Your task to perform on an android device: allow notifications from all sites in the chrome app Image 0: 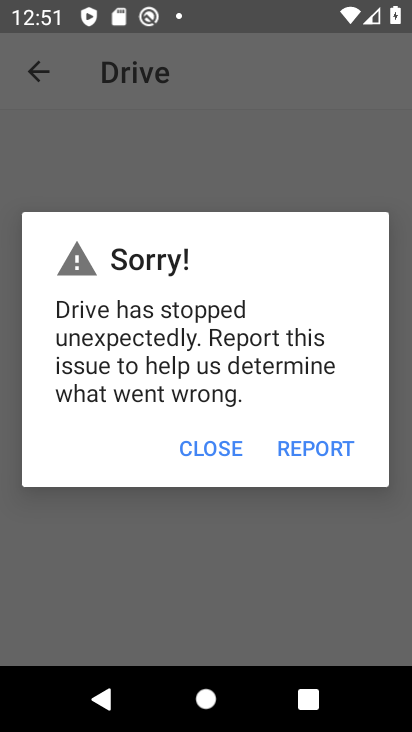
Step 0: press home button
Your task to perform on an android device: allow notifications from all sites in the chrome app Image 1: 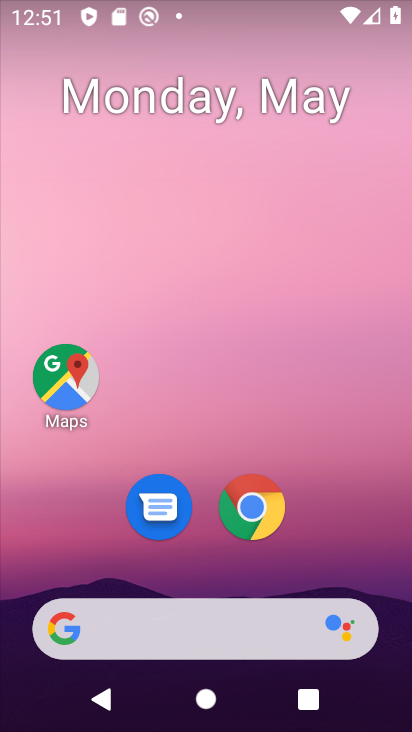
Step 1: click (257, 508)
Your task to perform on an android device: allow notifications from all sites in the chrome app Image 2: 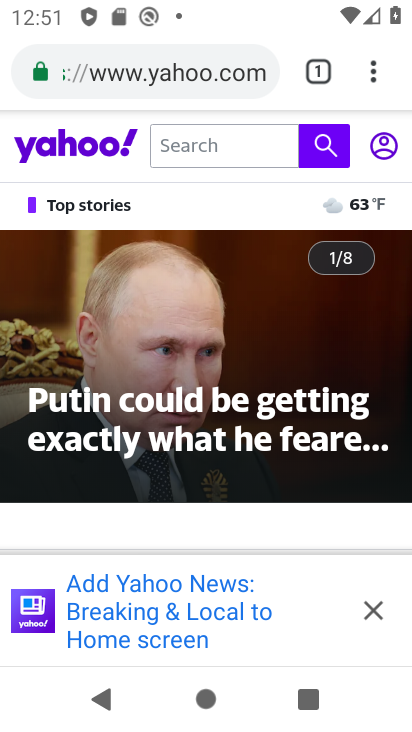
Step 2: drag from (378, 59) to (290, 507)
Your task to perform on an android device: allow notifications from all sites in the chrome app Image 3: 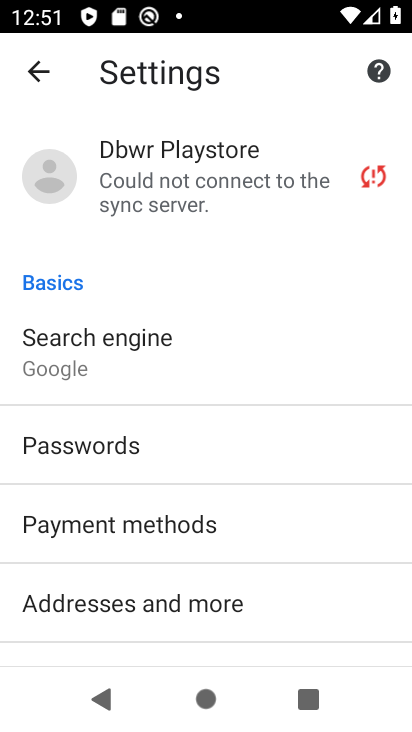
Step 3: drag from (200, 580) to (209, 285)
Your task to perform on an android device: allow notifications from all sites in the chrome app Image 4: 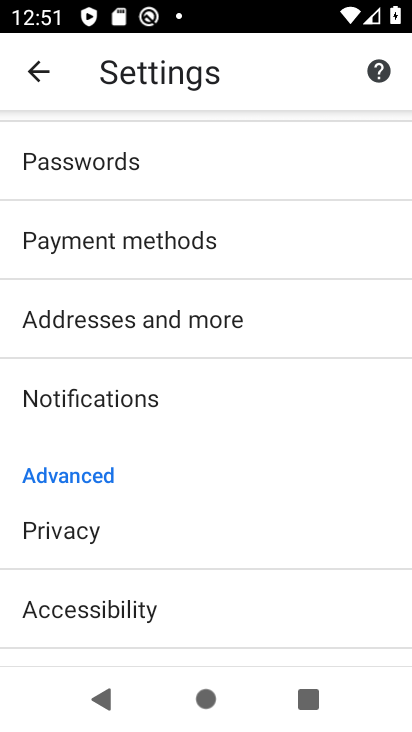
Step 4: click (101, 390)
Your task to perform on an android device: allow notifications from all sites in the chrome app Image 5: 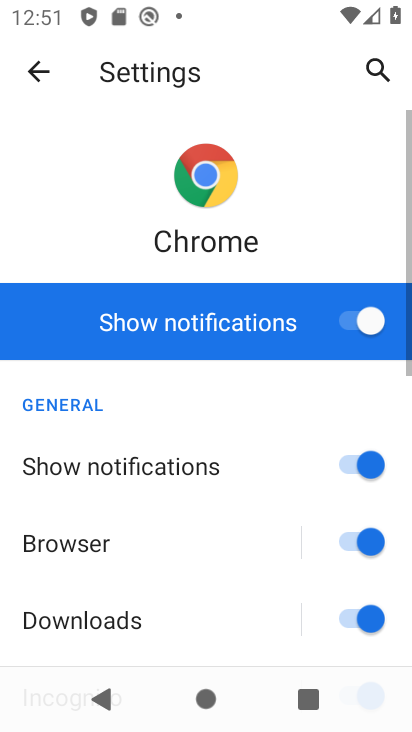
Step 5: task complete